Your task to perform on an android device: Open privacy settings Image 0: 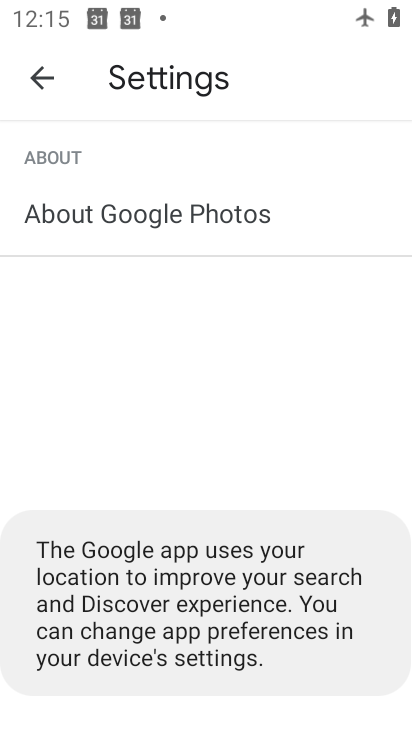
Step 0: press home button
Your task to perform on an android device: Open privacy settings Image 1: 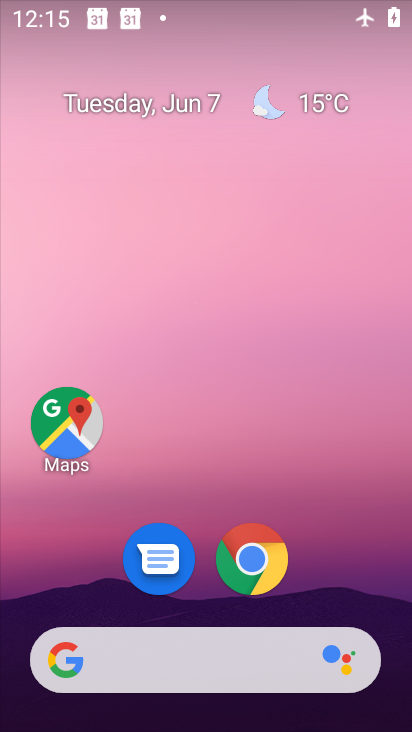
Step 1: drag from (391, 608) to (319, 33)
Your task to perform on an android device: Open privacy settings Image 2: 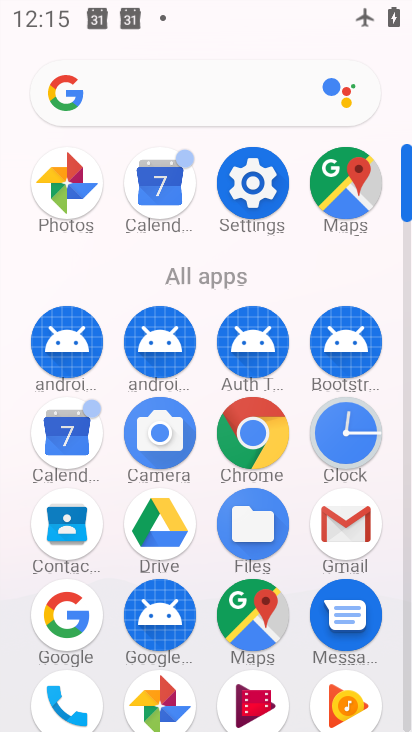
Step 2: click (407, 689)
Your task to perform on an android device: Open privacy settings Image 3: 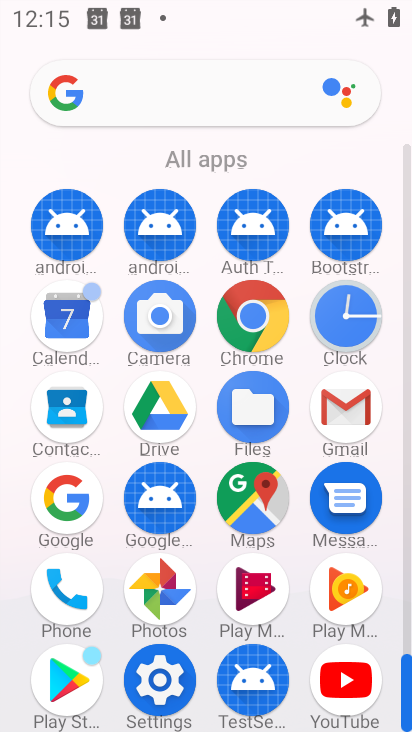
Step 3: click (159, 681)
Your task to perform on an android device: Open privacy settings Image 4: 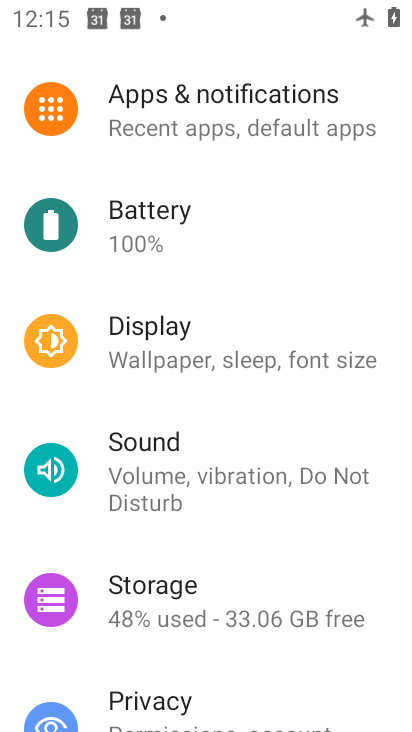
Step 4: drag from (370, 638) to (337, 139)
Your task to perform on an android device: Open privacy settings Image 5: 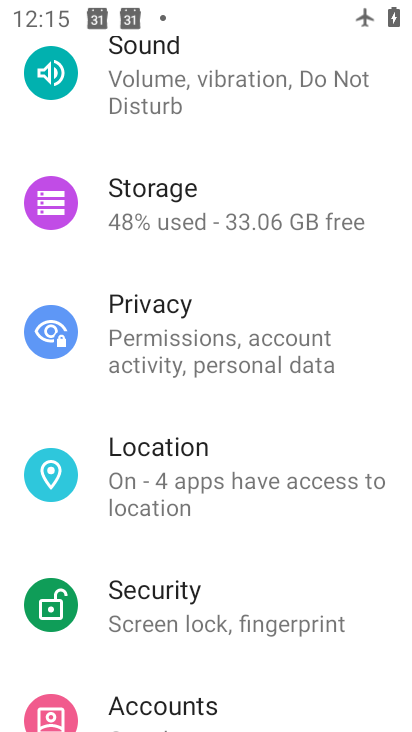
Step 5: click (177, 324)
Your task to perform on an android device: Open privacy settings Image 6: 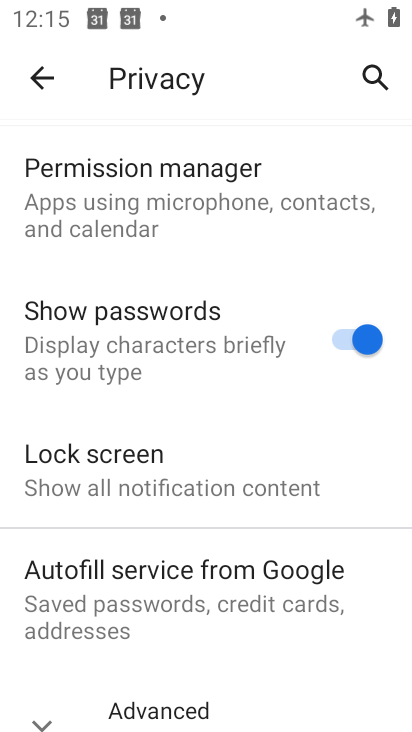
Step 6: drag from (56, 678) to (124, 333)
Your task to perform on an android device: Open privacy settings Image 7: 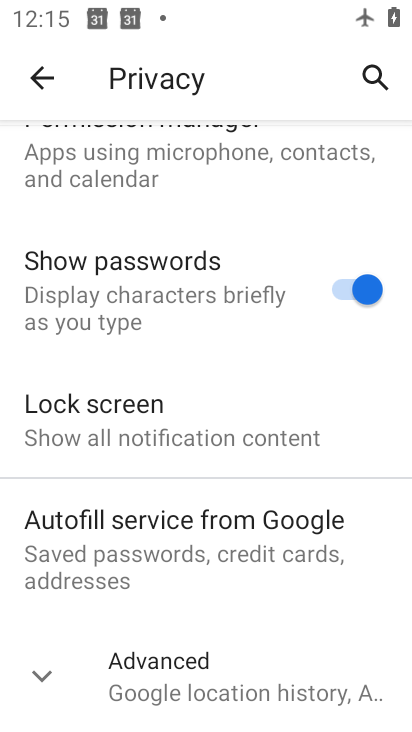
Step 7: click (45, 679)
Your task to perform on an android device: Open privacy settings Image 8: 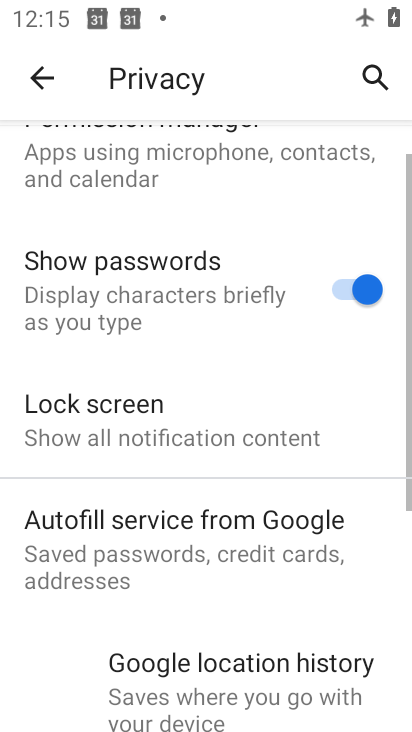
Step 8: task complete